Your task to perform on an android device: Set the phone to "Do not disturb". Image 0: 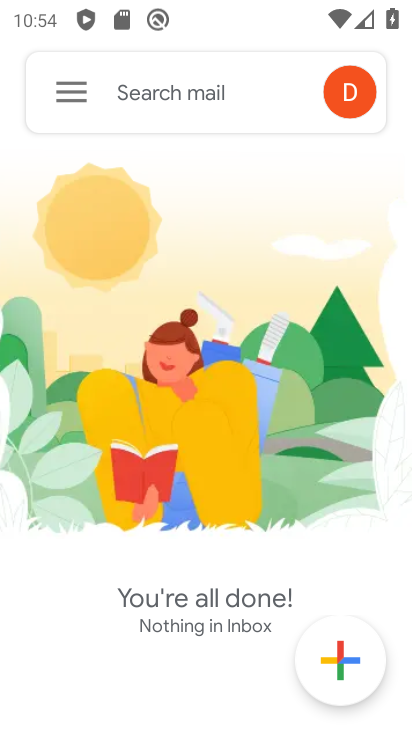
Step 0: click (81, 88)
Your task to perform on an android device: Set the phone to "Do not disturb". Image 1: 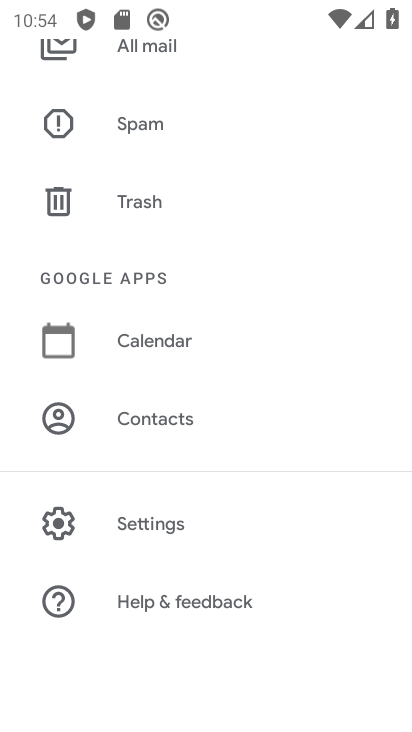
Step 1: press home button
Your task to perform on an android device: Set the phone to "Do not disturb". Image 2: 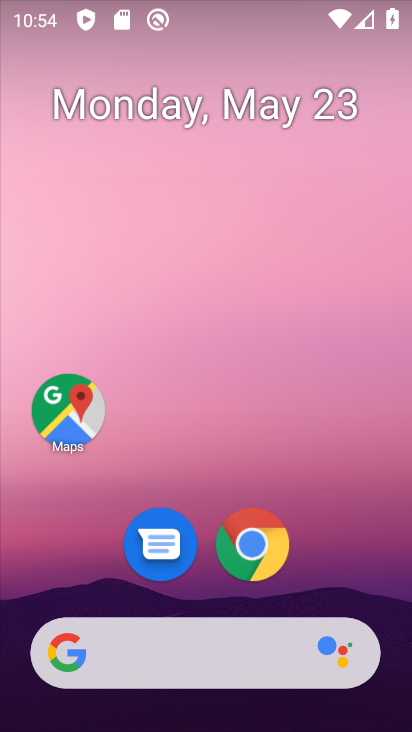
Step 2: drag from (391, 617) to (374, 94)
Your task to perform on an android device: Set the phone to "Do not disturb". Image 3: 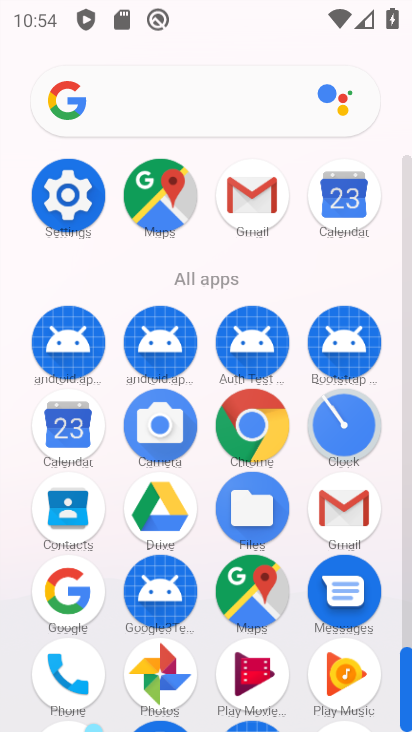
Step 3: click (405, 625)
Your task to perform on an android device: Set the phone to "Do not disturb". Image 4: 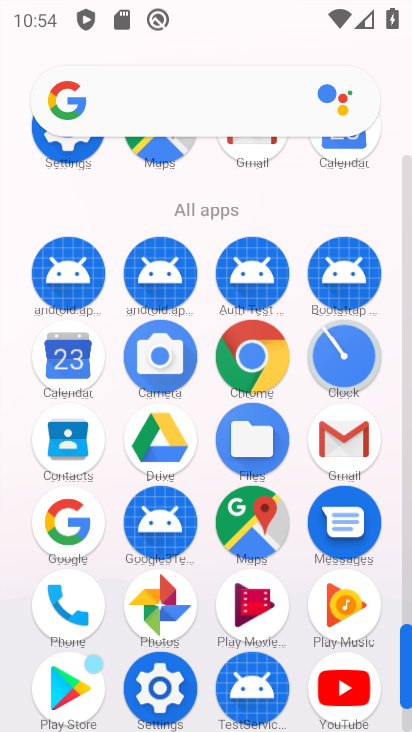
Step 4: click (159, 692)
Your task to perform on an android device: Set the phone to "Do not disturb". Image 5: 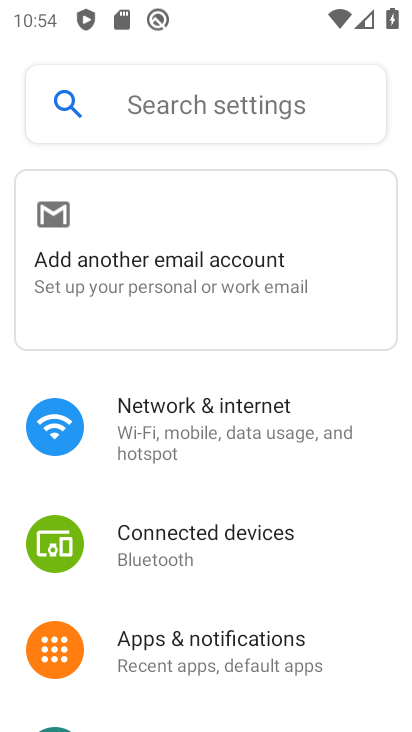
Step 5: drag from (324, 618) to (340, 171)
Your task to perform on an android device: Set the phone to "Do not disturb". Image 6: 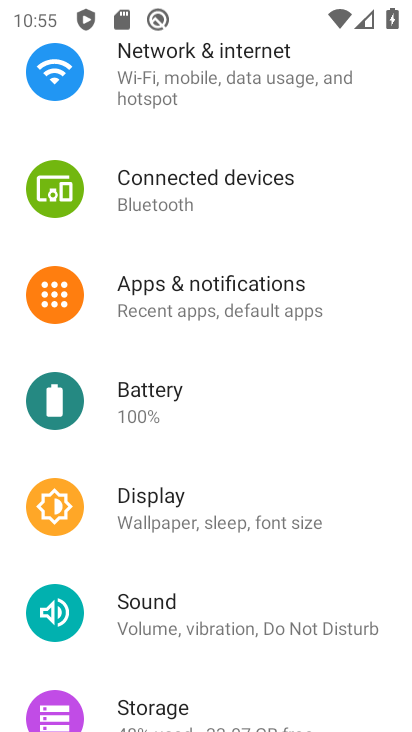
Step 6: click (179, 609)
Your task to perform on an android device: Set the phone to "Do not disturb". Image 7: 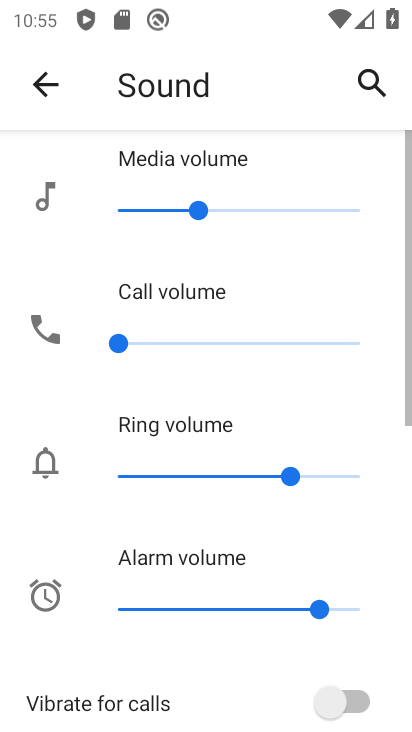
Step 7: drag from (277, 651) to (318, 196)
Your task to perform on an android device: Set the phone to "Do not disturb". Image 8: 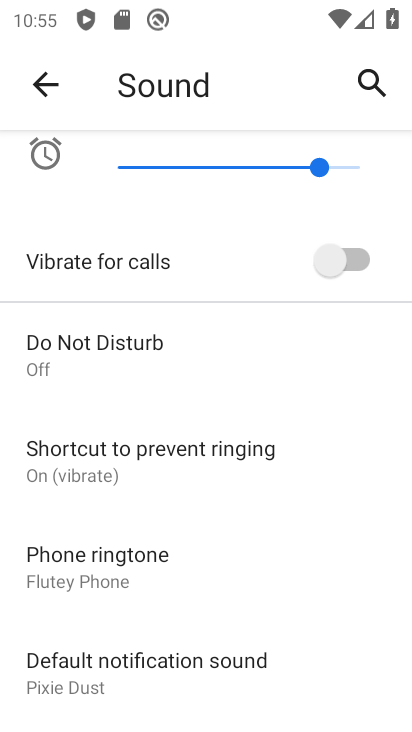
Step 8: click (80, 343)
Your task to perform on an android device: Set the phone to "Do not disturb". Image 9: 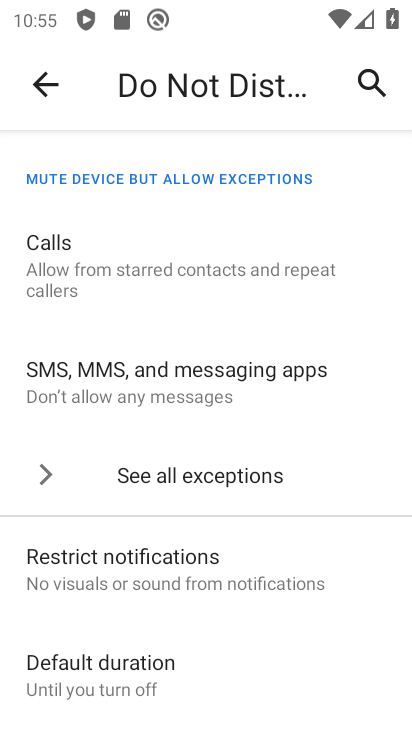
Step 9: drag from (287, 658) to (315, 229)
Your task to perform on an android device: Set the phone to "Do not disturb". Image 10: 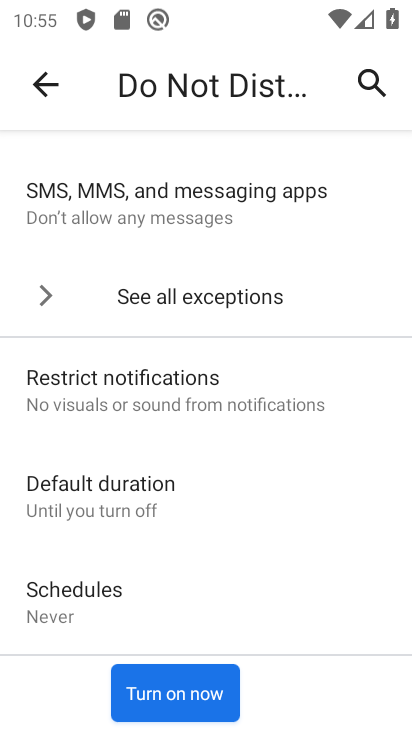
Step 10: click (161, 697)
Your task to perform on an android device: Set the phone to "Do not disturb". Image 11: 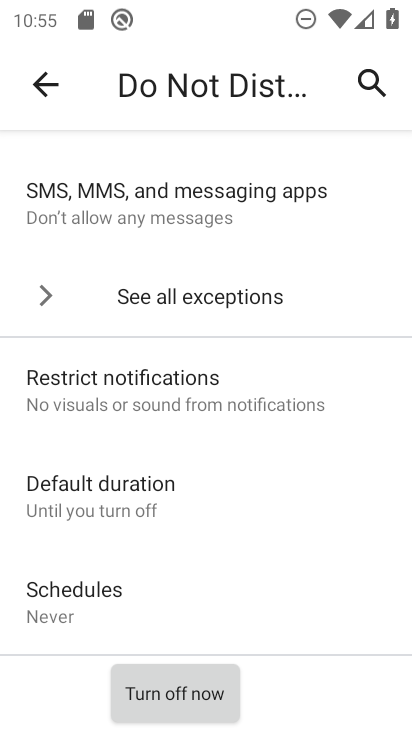
Step 11: task complete